Your task to perform on an android device: Open Google Chrome and open the bookmarks view Image 0: 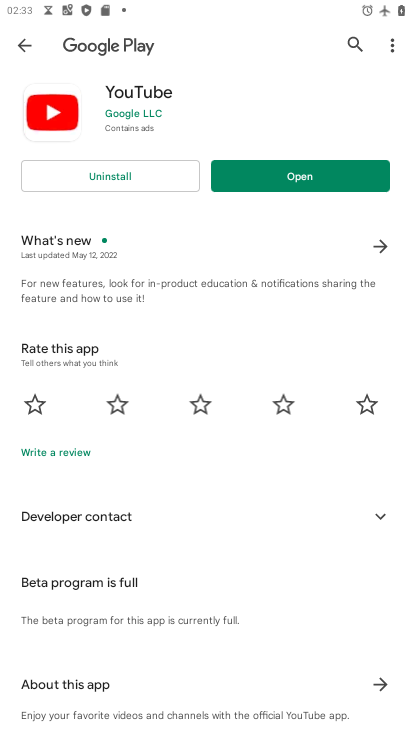
Step 0: press home button
Your task to perform on an android device: Open Google Chrome and open the bookmarks view Image 1: 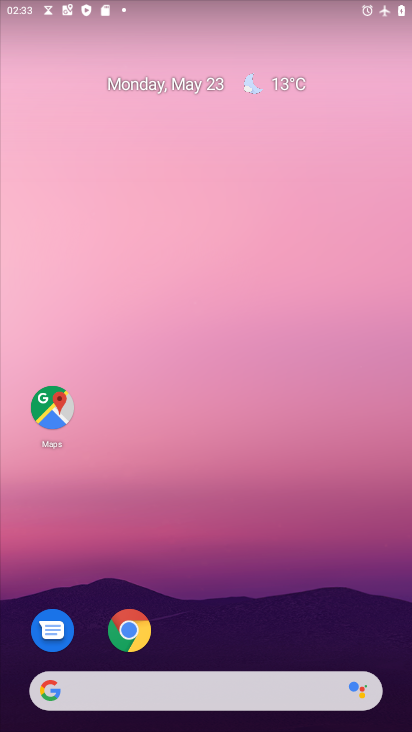
Step 1: click (127, 635)
Your task to perform on an android device: Open Google Chrome and open the bookmarks view Image 2: 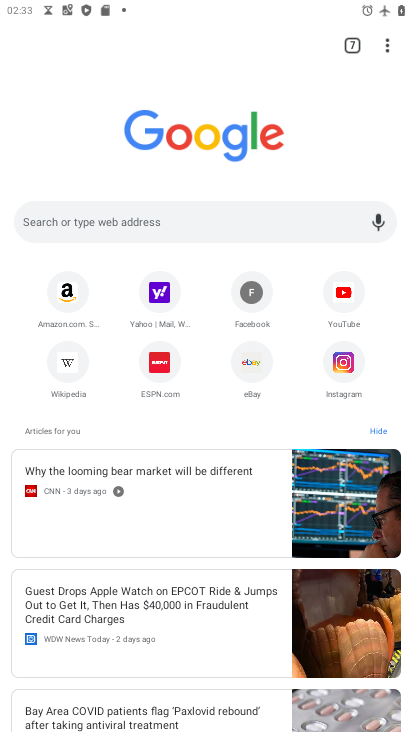
Step 2: click (382, 51)
Your task to perform on an android device: Open Google Chrome and open the bookmarks view Image 3: 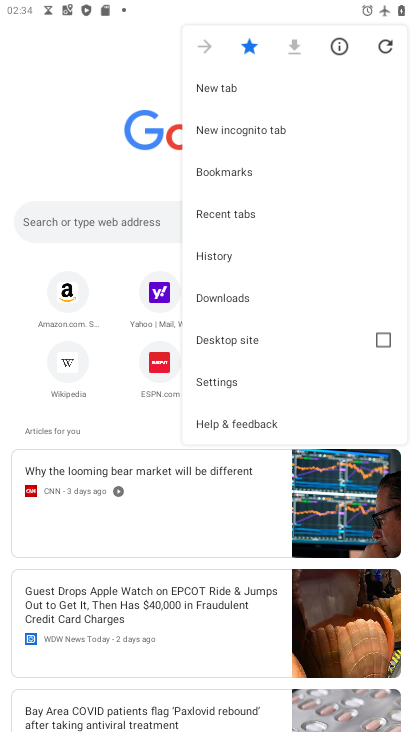
Step 3: click (240, 172)
Your task to perform on an android device: Open Google Chrome and open the bookmarks view Image 4: 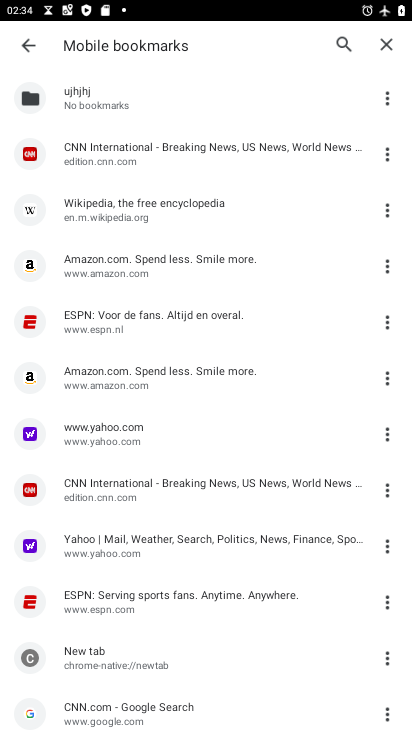
Step 4: click (154, 208)
Your task to perform on an android device: Open Google Chrome and open the bookmarks view Image 5: 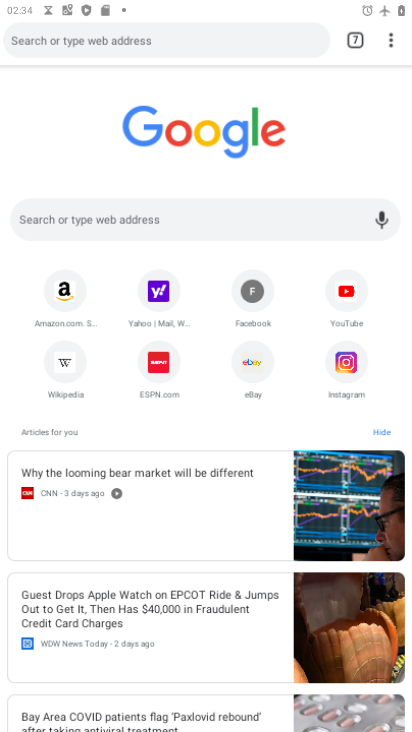
Step 5: task complete